Your task to perform on an android device: What's the weather going to be this weekend? Image 0: 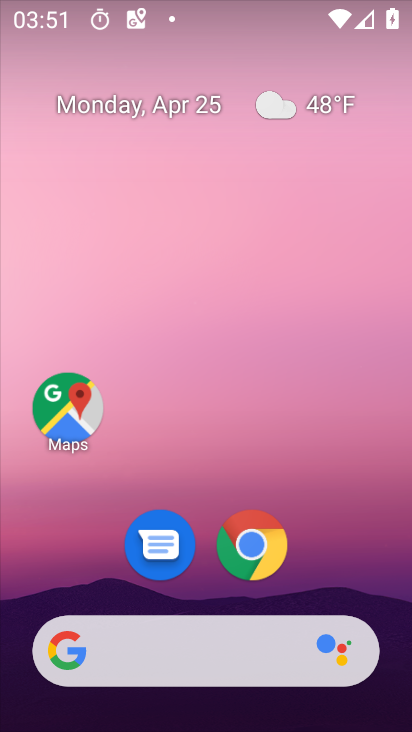
Step 0: drag from (200, 514) to (189, 90)
Your task to perform on an android device: What's the weather going to be this weekend? Image 1: 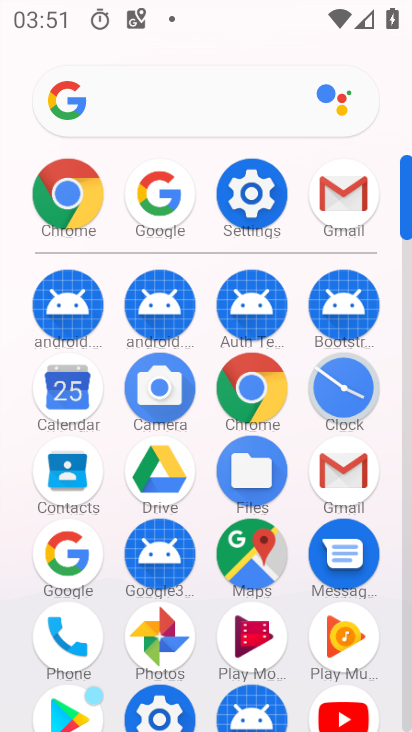
Step 1: click (160, 184)
Your task to perform on an android device: What's the weather going to be this weekend? Image 2: 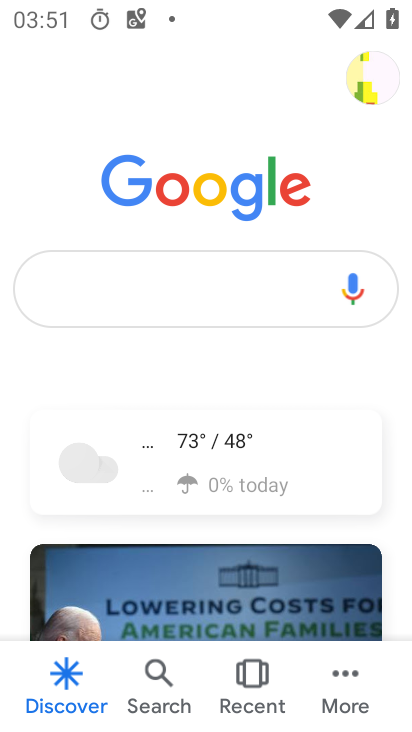
Step 2: click (191, 282)
Your task to perform on an android device: What's the weather going to be this weekend? Image 3: 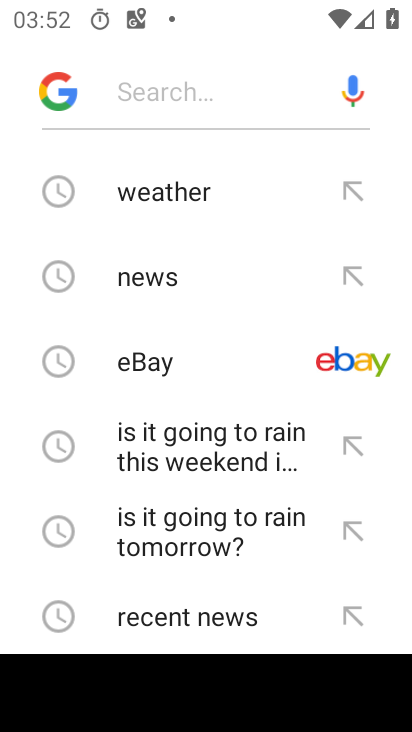
Step 3: type "What's the weather going to be this weekend?"
Your task to perform on an android device: What's the weather going to be this weekend? Image 4: 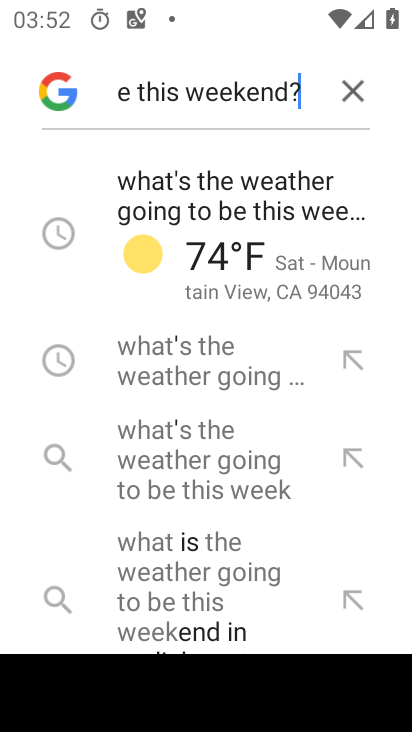
Step 4: type ""
Your task to perform on an android device: What's the weather going to be this weekend? Image 5: 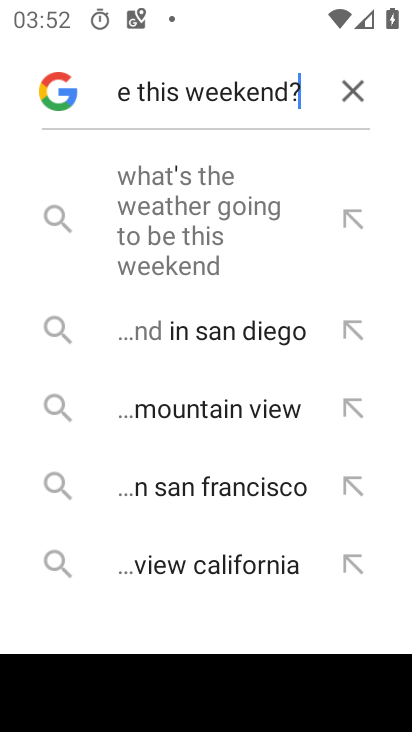
Step 5: click (168, 184)
Your task to perform on an android device: What's the weather going to be this weekend? Image 6: 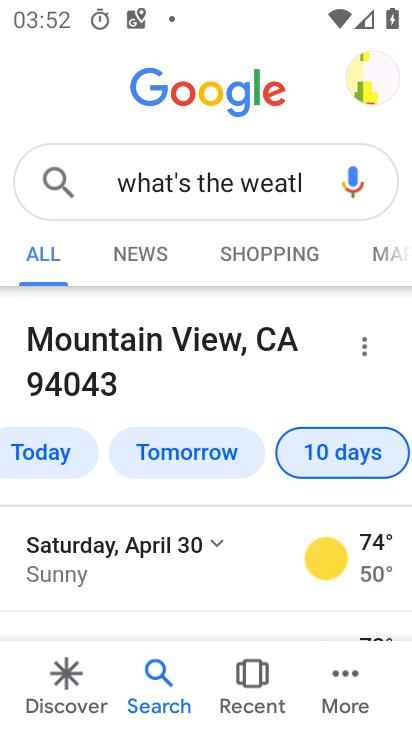
Step 6: task complete